Your task to perform on an android device: Open Google Chrome Image 0: 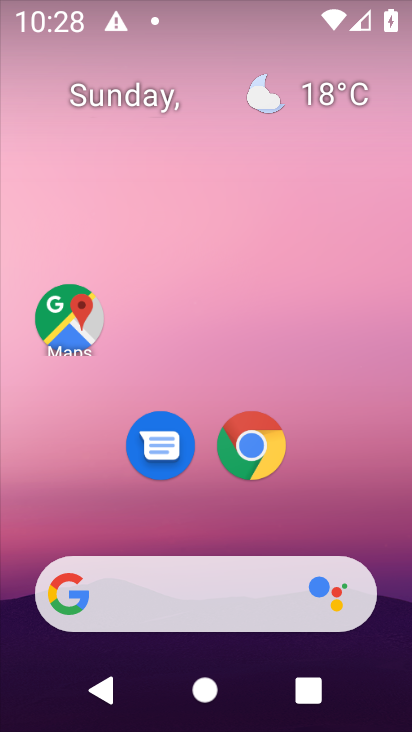
Step 0: click (273, 445)
Your task to perform on an android device: Open Google Chrome Image 1: 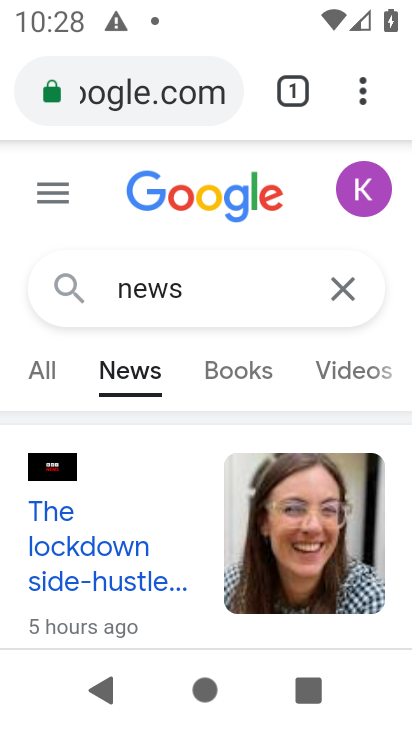
Step 1: task complete